Your task to perform on an android device: star an email in the gmail app Image 0: 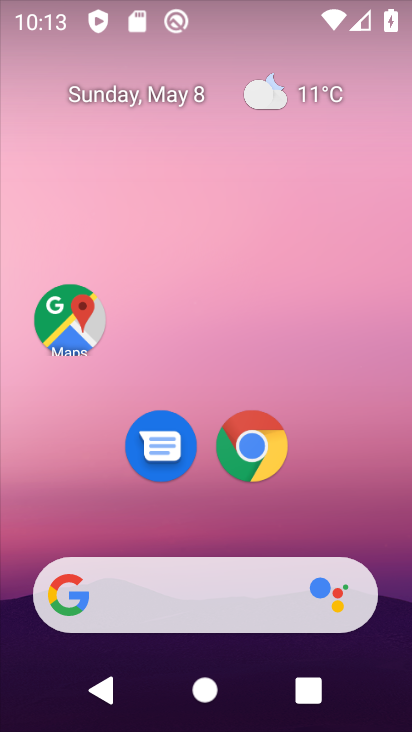
Step 0: drag from (387, 562) to (392, 6)
Your task to perform on an android device: star an email in the gmail app Image 1: 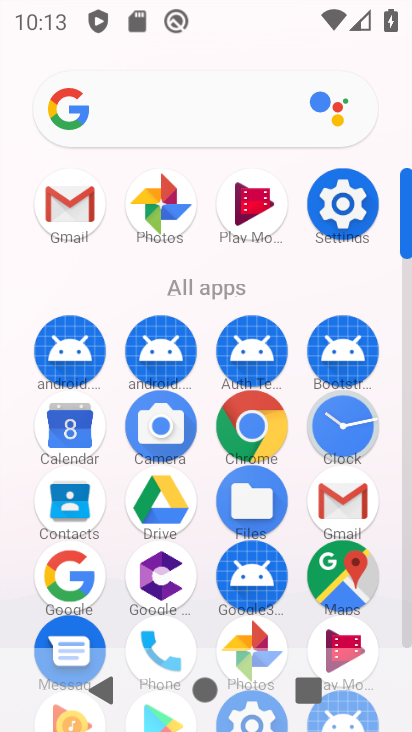
Step 1: click (336, 490)
Your task to perform on an android device: star an email in the gmail app Image 2: 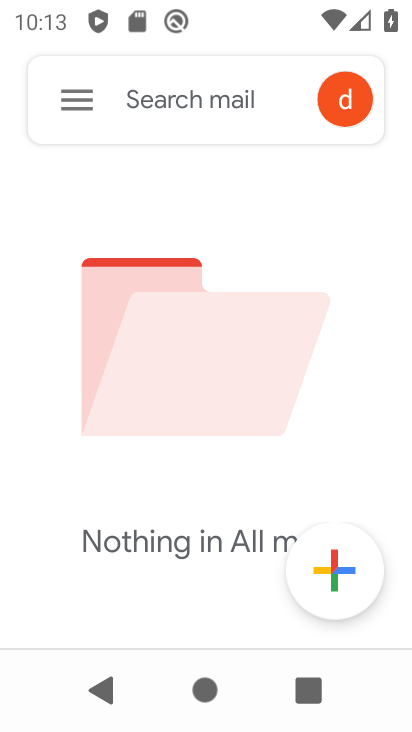
Step 2: task complete